Your task to perform on an android device: open chrome privacy settings Image 0: 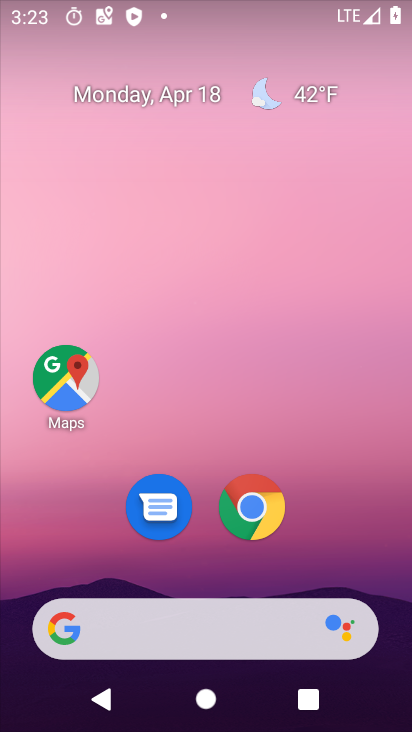
Step 0: drag from (342, 495) to (359, 117)
Your task to perform on an android device: open chrome privacy settings Image 1: 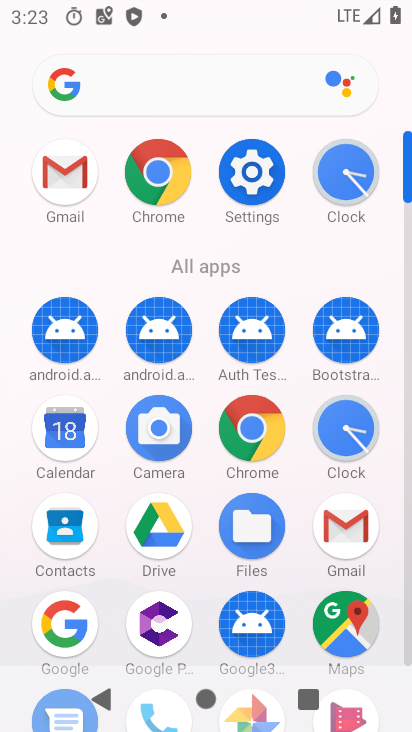
Step 1: click (261, 428)
Your task to perform on an android device: open chrome privacy settings Image 2: 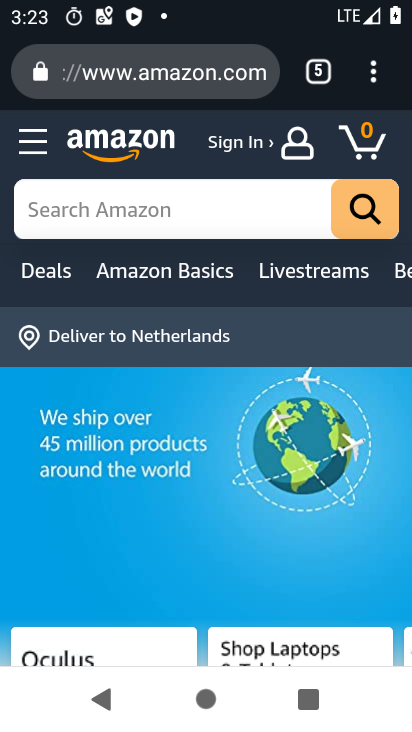
Step 2: click (369, 77)
Your task to perform on an android device: open chrome privacy settings Image 3: 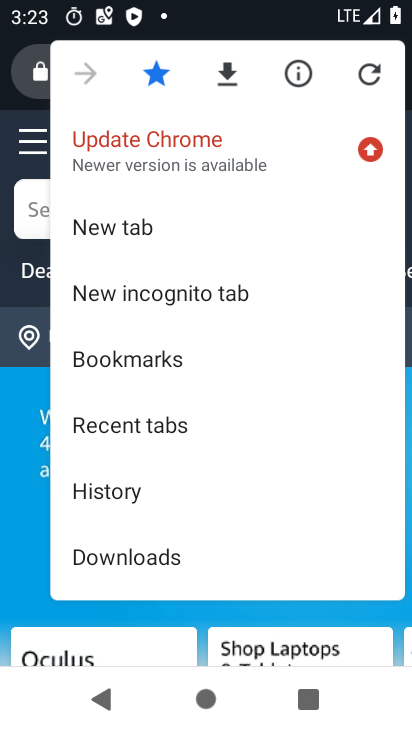
Step 3: drag from (197, 480) to (236, 206)
Your task to perform on an android device: open chrome privacy settings Image 4: 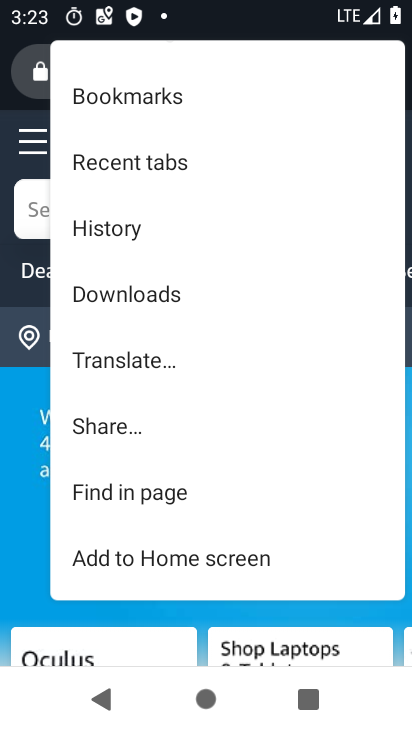
Step 4: drag from (154, 535) to (225, 251)
Your task to perform on an android device: open chrome privacy settings Image 5: 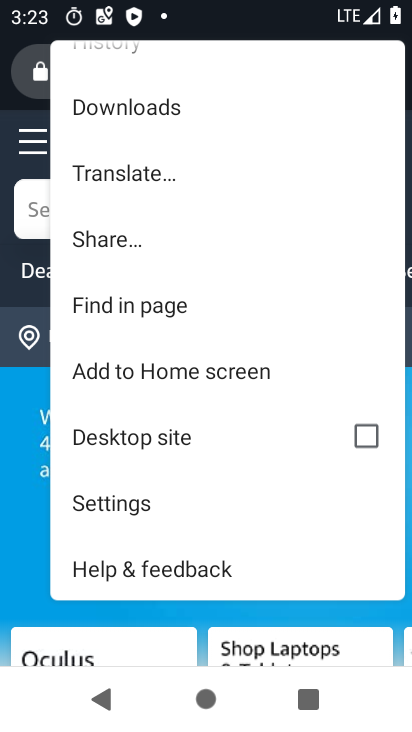
Step 5: click (98, 503)
Your task to perform on an android device: open chrome privacy settings Image 6: 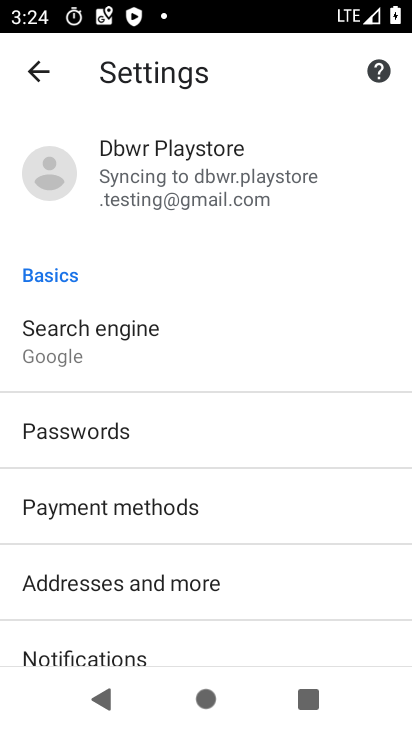
Step 6: drag from (293, 615) to (299, 325)
Your task to perform on an android device: open chrome privacy settings Image 7: 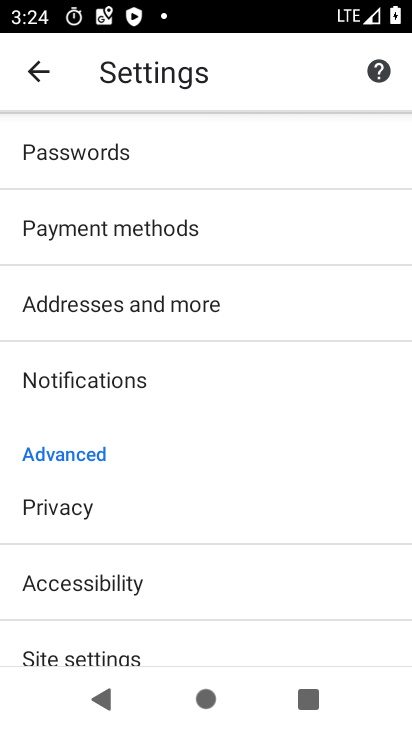
Step 7: click (63, 502)
Your task to perform on an android device: open chrome privacy settings Image 8: 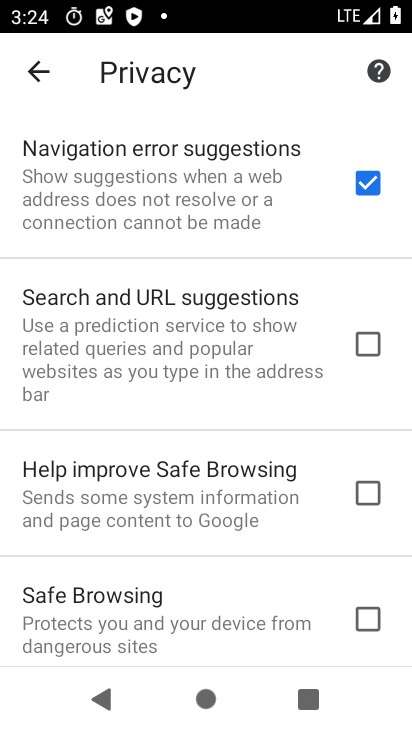
Step 8: task complete